Your task to perform on an android device: remove spam from my inbox in the gmail app Image 0: 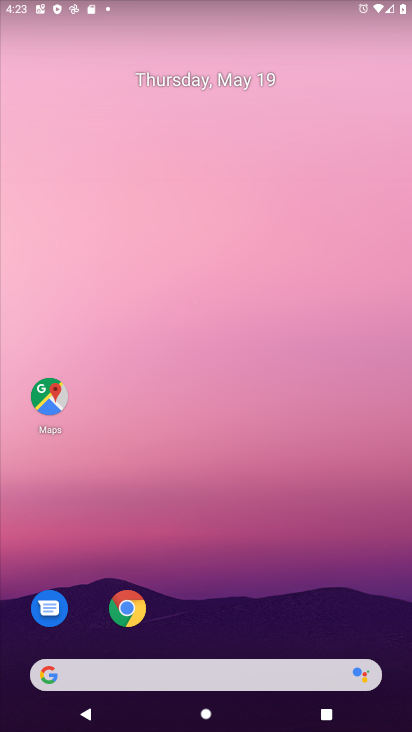
Step 0: drag from (310, 627) to (288, 161)
Your task to perform on an android device: remove spam from my inbox in the gmail app Image 1: 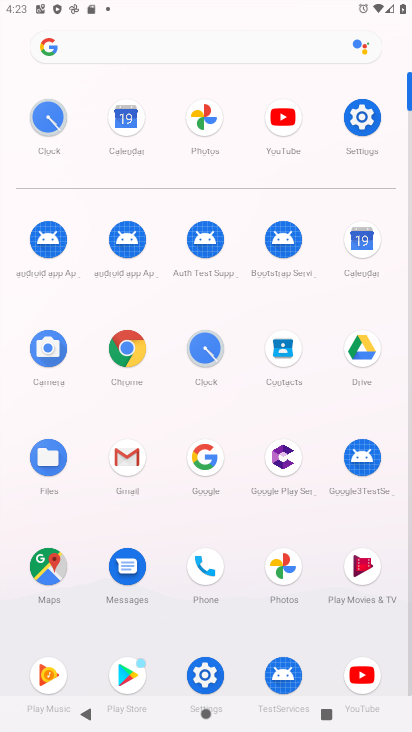
Step 1: click (136, 475)
Your task to perform on an android device: remove spam from my inbox in the gmail app Image 2: 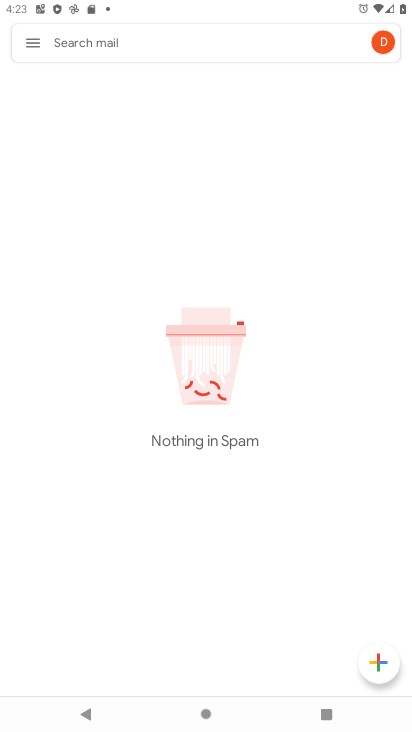
Step 2: click (35, 50)
Your task to perform on an android device: remove spam from my inbox in the gmail app Image 3: 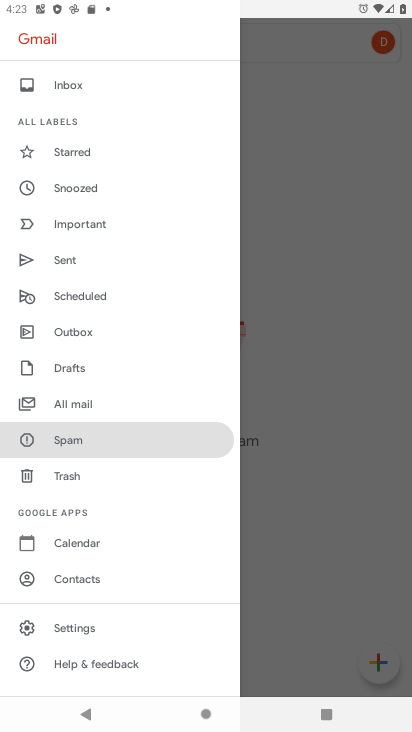
Step 3: click (82, 402)
Your task to perform on an android device: remove spam from my inbox in the gmail app Image 4: 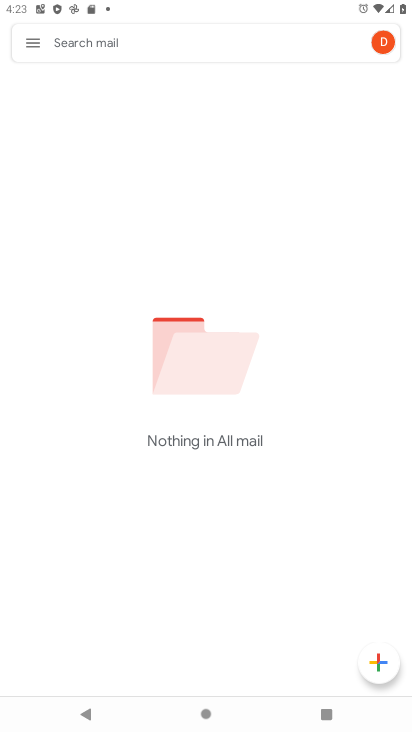
Step 4: task complete